Your task to perform on an android device: open the mobile data screen to see how much data has been used Image 0: 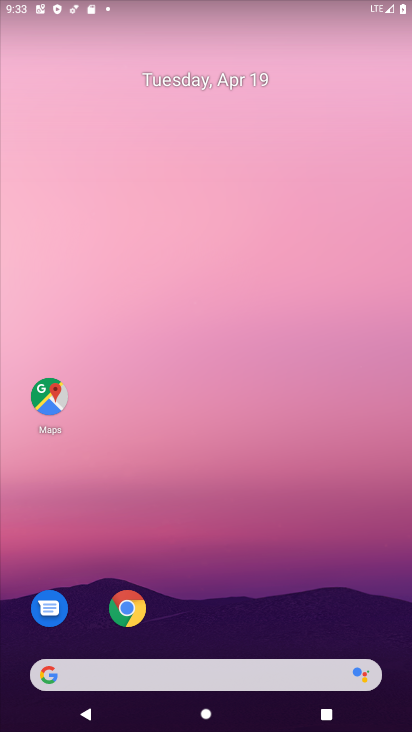
Step 0: drag from (363, 635) to (254, 107)
Your task to perform on an android device: open the mobile data screen to see how much data has been used Image 1: 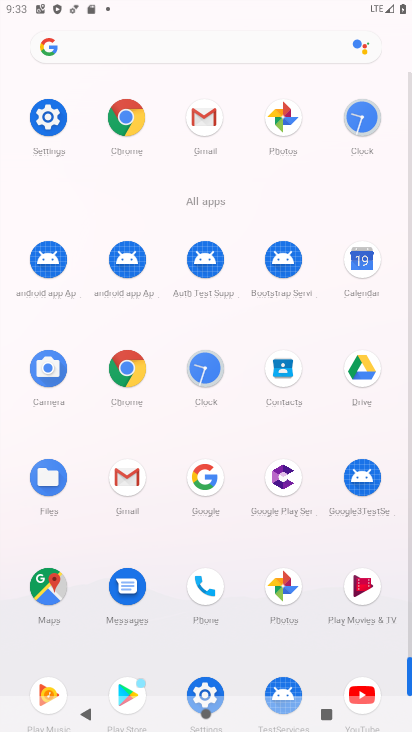
Step 1: click (411, 637)
Your task to perform on an android device: open the mobile data screen to see how much data has been used Image 2: 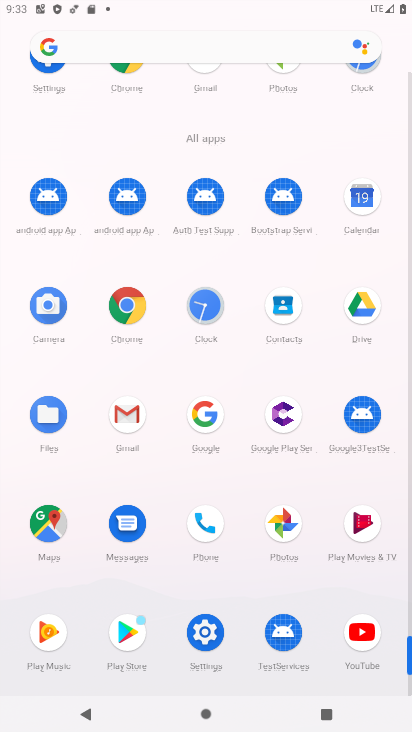
Step 2: click (205, 632)
Your task to perform on an android device: open the mobile data screen to see how much data has been used Image 3: 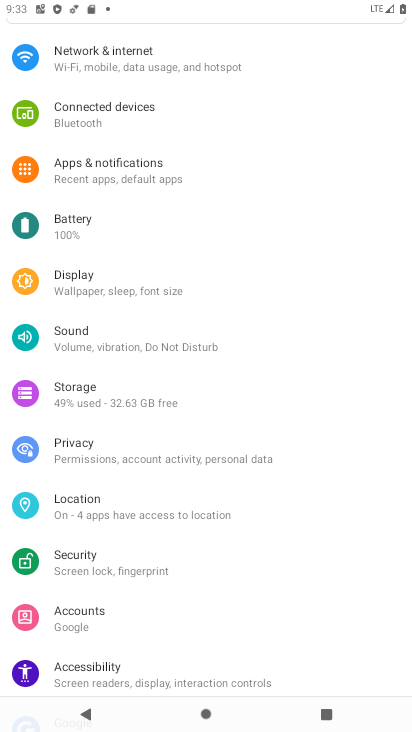
Step 3: click (86, 58)
Your task to perform on an android device: open the mobile data screen to see how much data has been used Image 4: 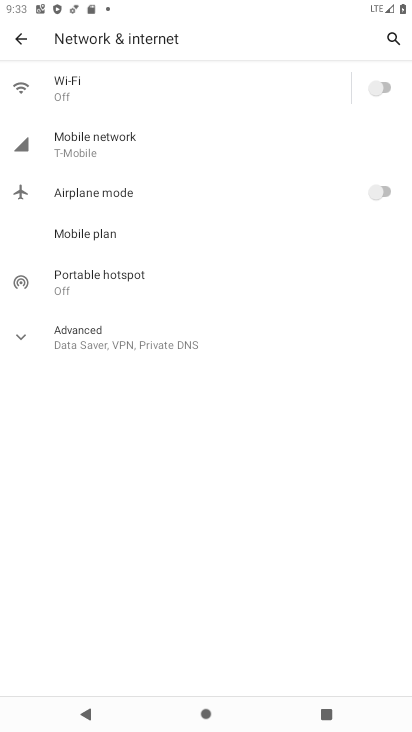
Step 4: click (77, 145)
Your task to perform on an android device: open the mobile data screen to see how much data has been used Image 5: 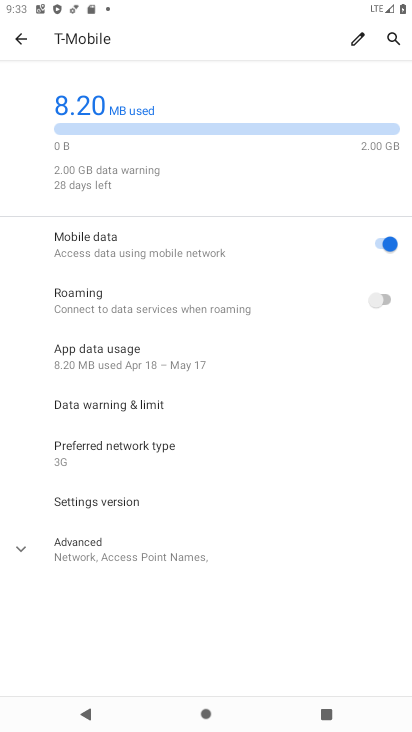
Step 5: task complete